Your task to perform on an android device: Go to network settings Image 0: 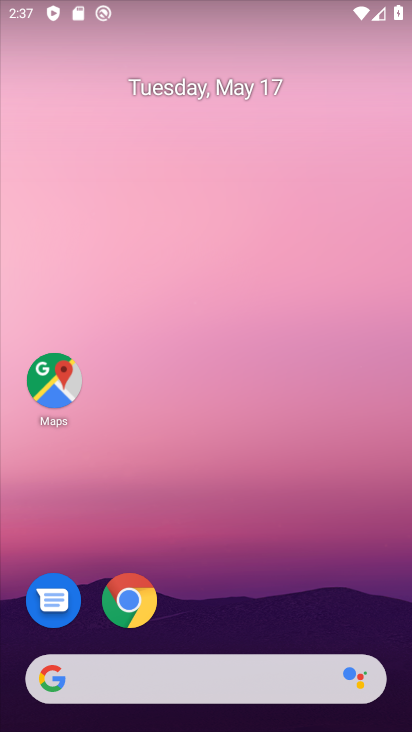
Step 0: drag from (211, 641) to (319, 152)
Your task to perform on an android device: Go to network settings Image 1: 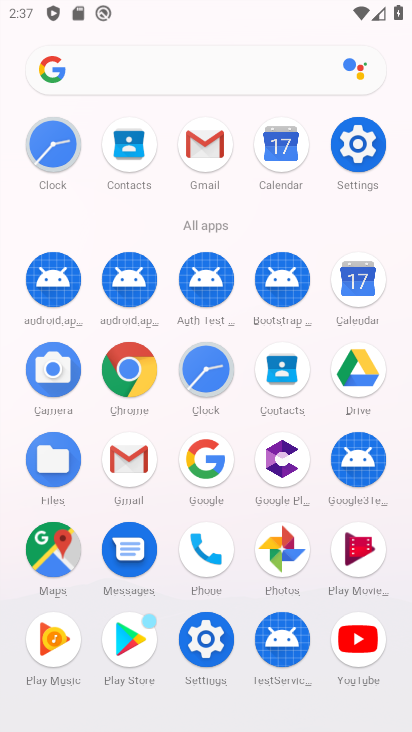
Step 1: drag from (306, 541) to (337, 384)
Your task to perform on an android device: Go to network settings Image 2: 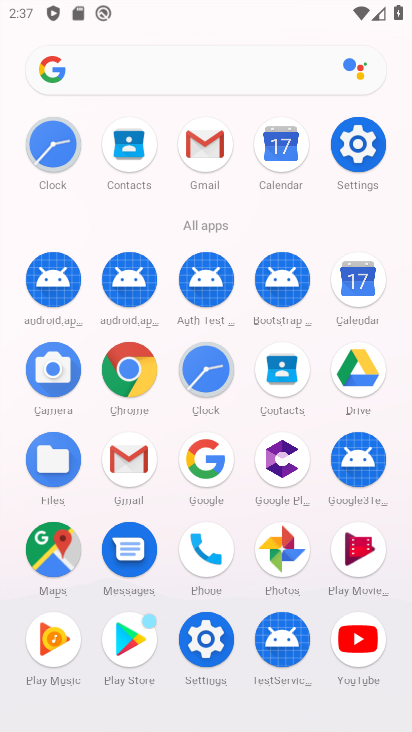
Step 2: click (202, 638)
Your task to perform on an android device: Go to network settings Image 3: 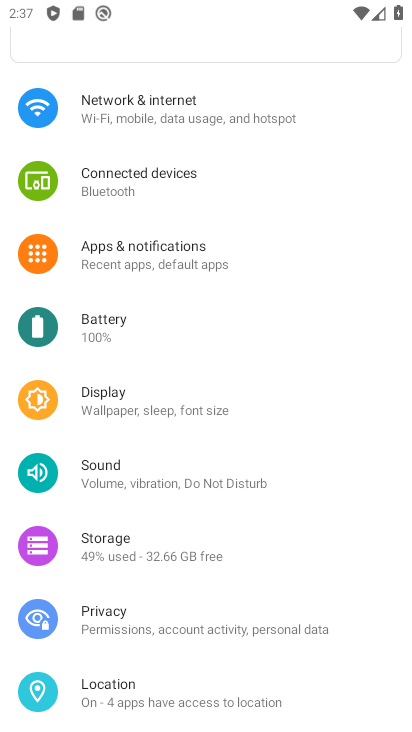
Step 3: drag from (247, 182) to (239, 501)
Your task to perform on an android device: Go to network settings Image 4: 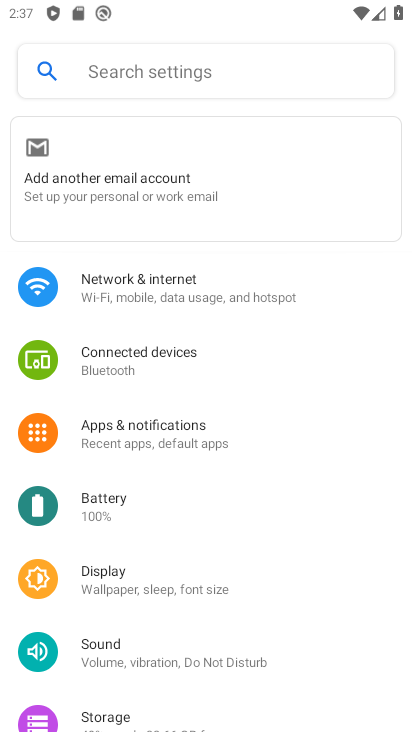
Step 4: click (242, 303)
Your task to perform on an android device: Go to network settings Image 5: 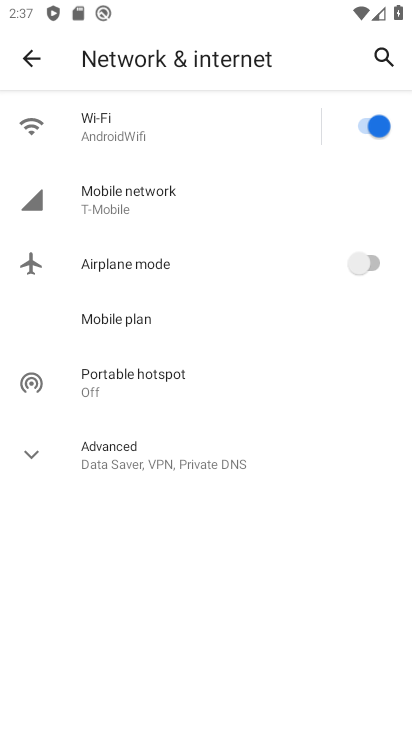
Step 5: click (232, 217)
Your task to perform on an android device: Go to network settings Image 6: 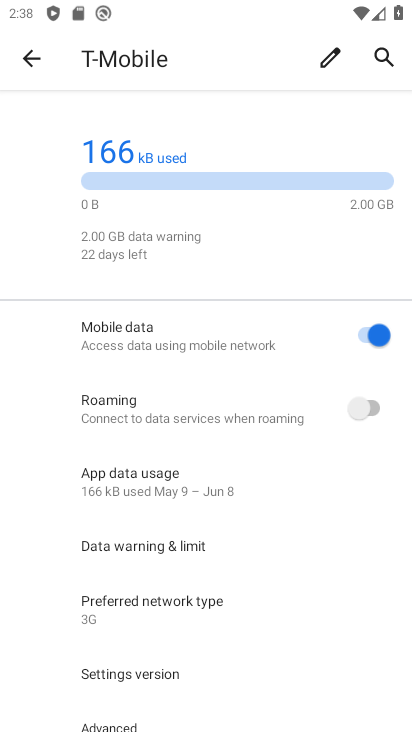
Step 6: task complete